Your task to perform on an android device: What is the news today? Image 0: 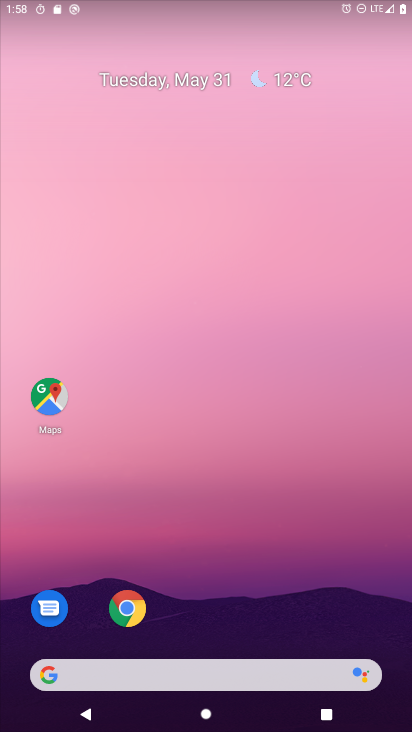
Step 0: click (116, 676)
Your task to perform on an android device: What is the news today? Image 1: 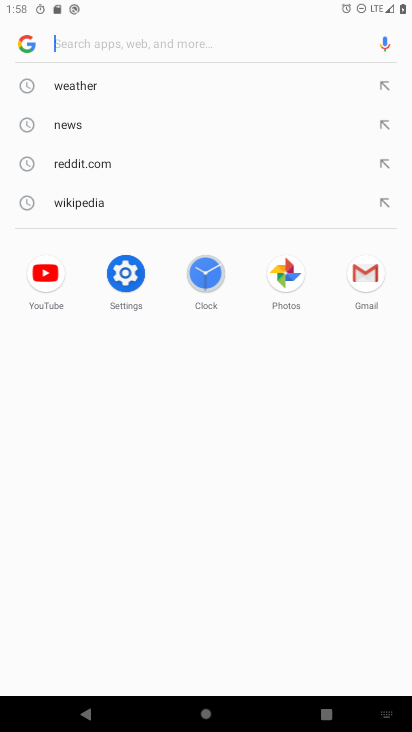
Step 1: click (91, 40)
Your task to perform on an android device: What is the news today? Image 2: 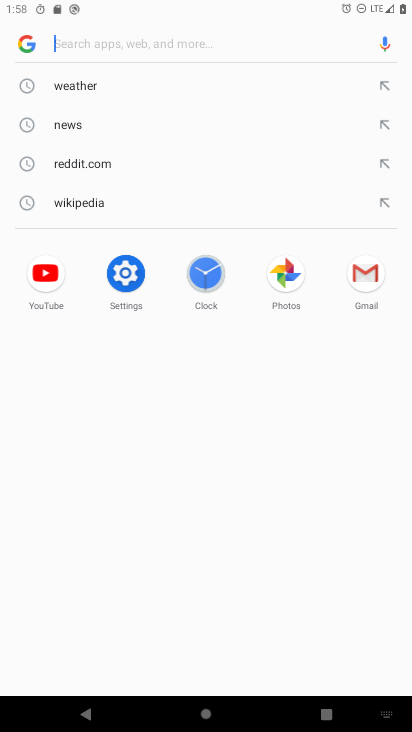
Step 2: type "news today"
Your task to perform on an android device: What is the news today? Image 3: 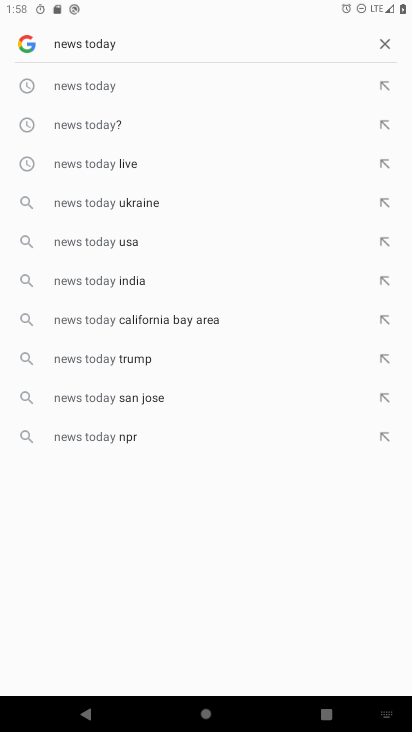
Step 3: click (80, 89)
Your task to perform on an android device: What is the news today? Image 4: 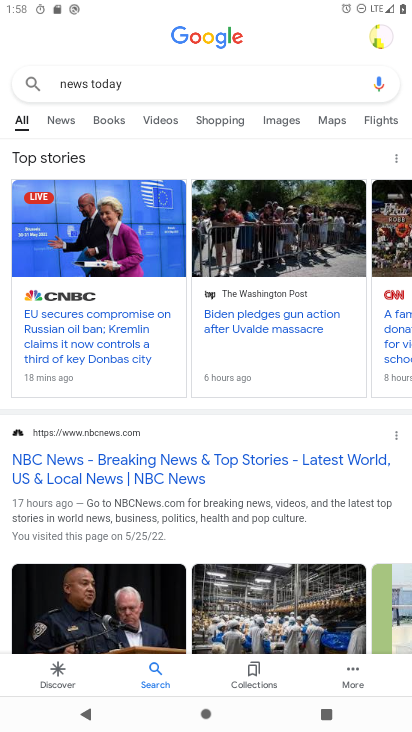
Step 4: click (66, 119)
Your task to perform on an android device: What is the news today? Image 5: 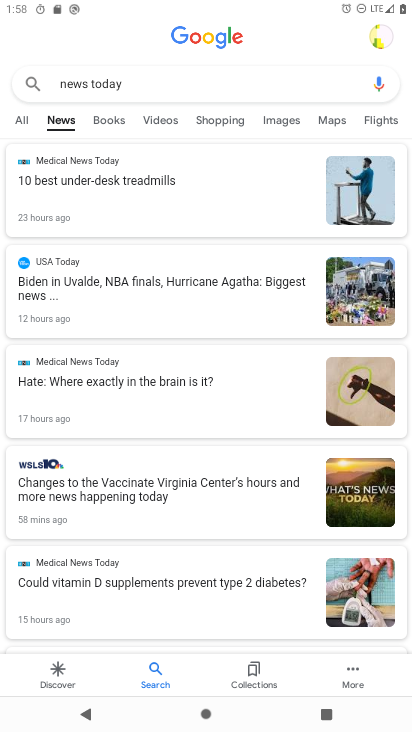
Step 5: click (81, 505)
Your task to perform on an android device: What is the news today? Image 6: 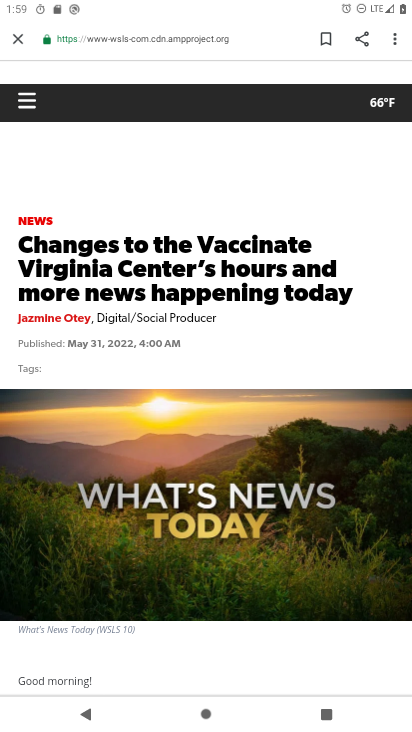
Step 6: task complete